Your task to perform on an android device: toggle priority inbox in the gmail app Image 0: 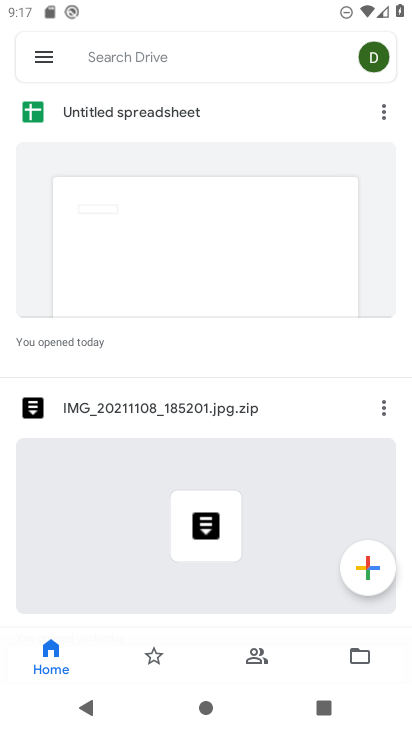
Step 0: press home button
Your task to perform on an android device: toggle priority inbox in the gmail app Image 1: 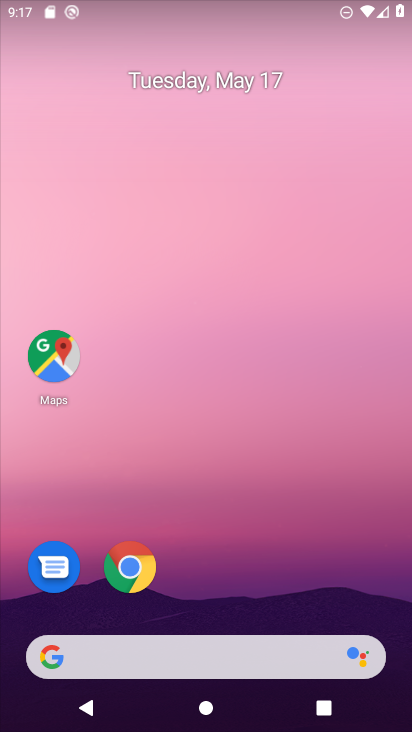
Step 1: drag from (213, 630) to (322, 97)
Your task to perform on an android device: toggle priority inbox in the gmail app Image 2: 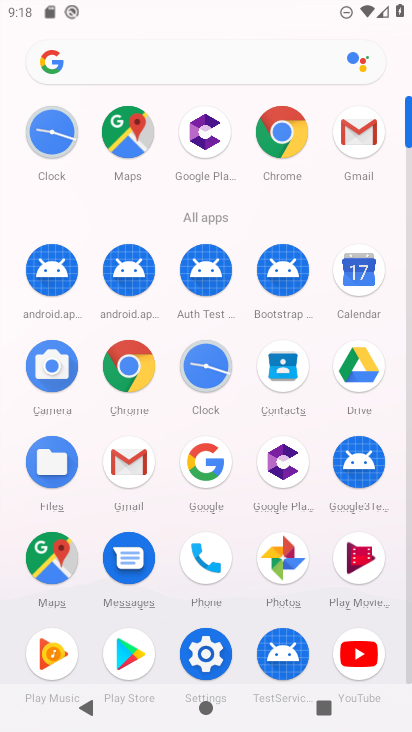
Step 2: click (145, 463)
Your task to perform on an android device: toggle priority inbox in the gmail app Image 3: 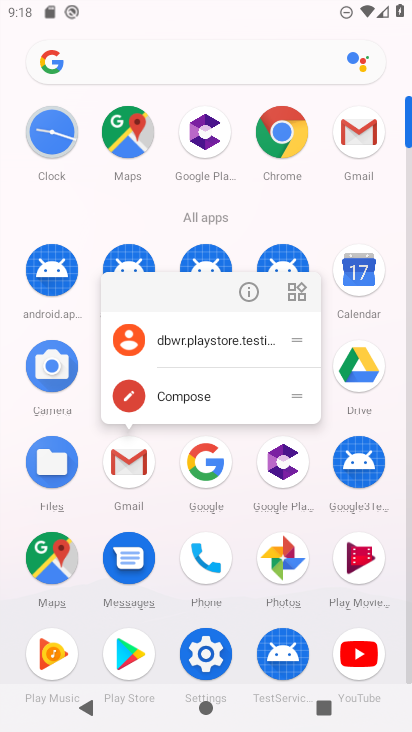
Step 3: click (140, 478)
Your task to perform on an android device: toggle priority inbox in the gmail app Image 4: 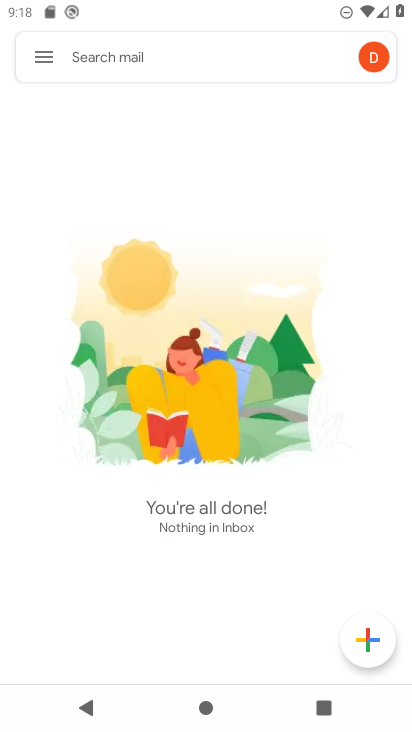
Step 4: click (52, 64)
Your task to perform on an android device: toggle priority inbox in the gmail app Image 5: 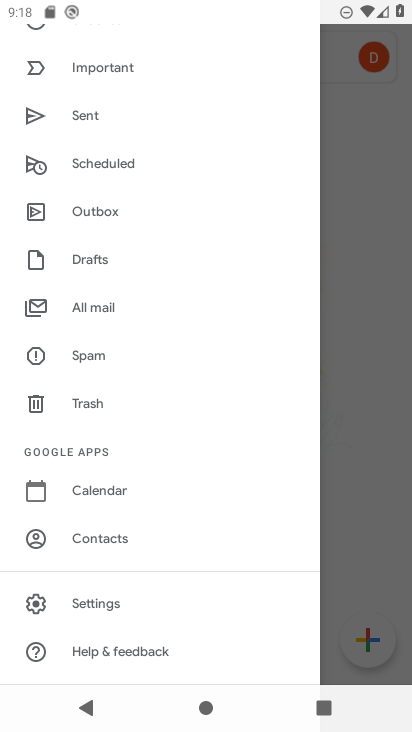
Step 5: drag from (113, 545) to (242, 170)
Your task to perform on an android device: toggle priority inbox in the gmail app Image 6: 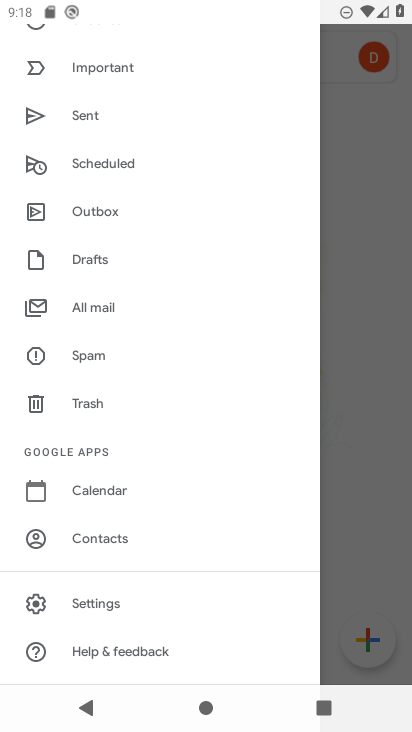
Step 6: click (129, 610)
Your task to perform on an android device: toggle priority inbox in the gmail app Image 7: 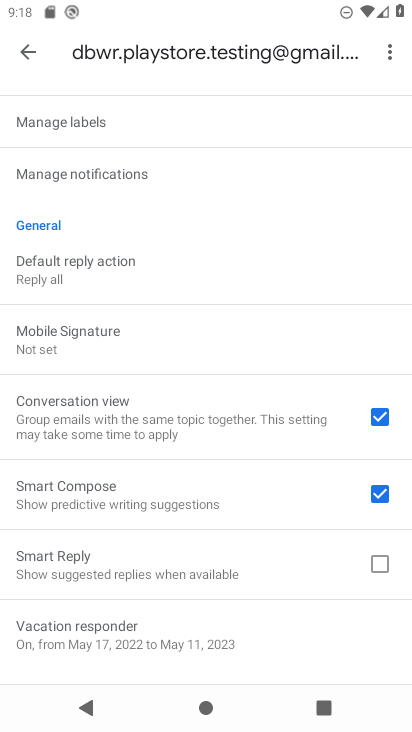
Step 7: drag from (129, 610) to (183, 690)
Your task to perform on an android device: toggle priority inbox in the gmail app Image 8: 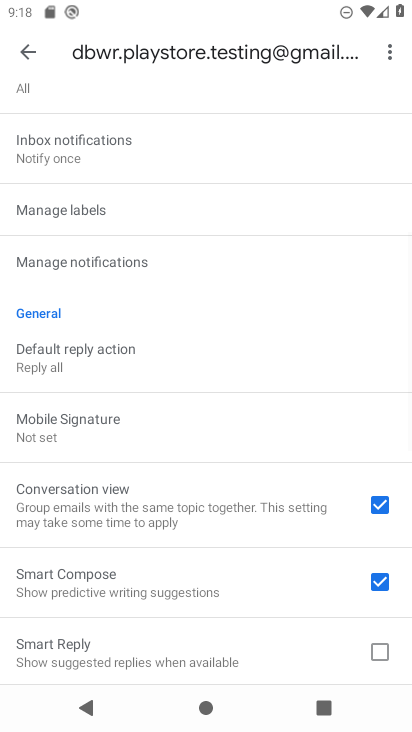
Step 8: drag from (172, 259) to (169, 535)
Your task to perform on an android device: toggle priority inbox in the gmail app Image 9: 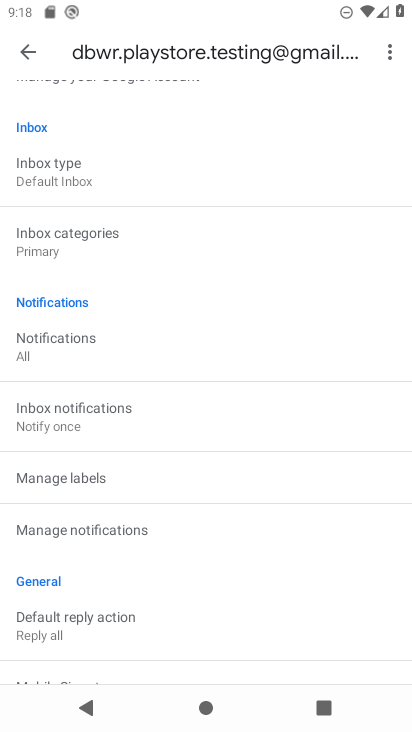
Step 9: click (141, 179)
Your task to perform on an android device: toggle priority inbox in the gmail app Image 10: 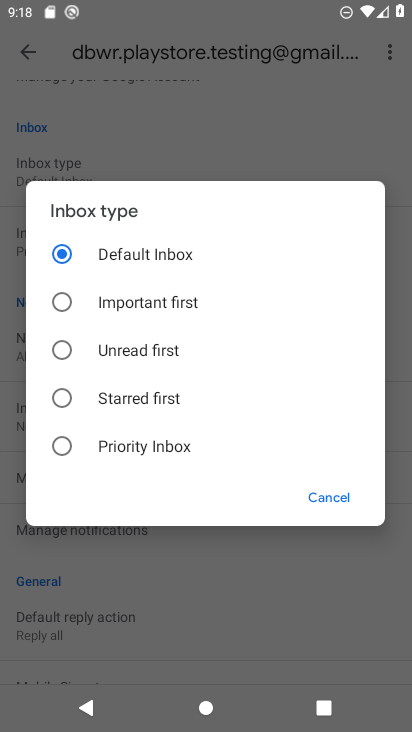
Step 10: click (165, 452)
Your task to perform on an android device: toggle priority inbox in the gmail app Image 11: 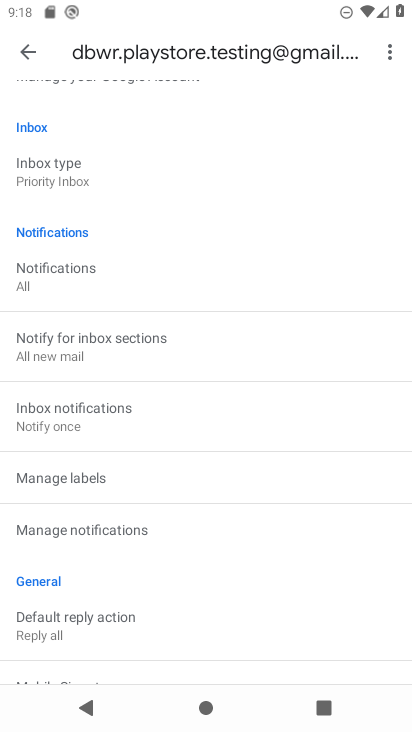
Step 11: task complete